Your task to perform on an android device: Open the Play Movies app and select the watchlist tab. Image 0: 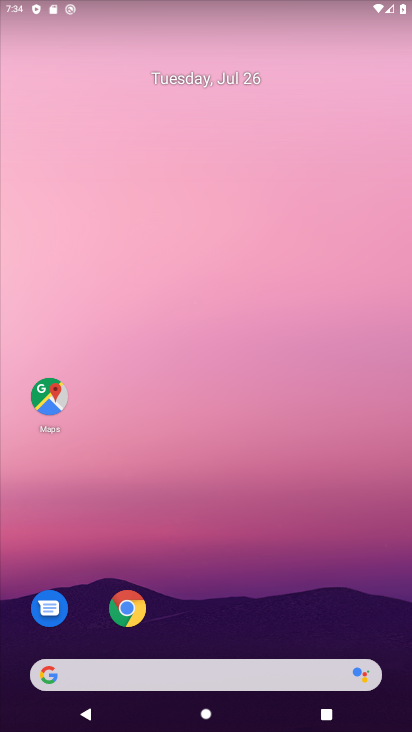
Step 0: click (252, 161)
Your task to perform on an android device: Open the Play Movies app and select the watchlist tab. Image 1: 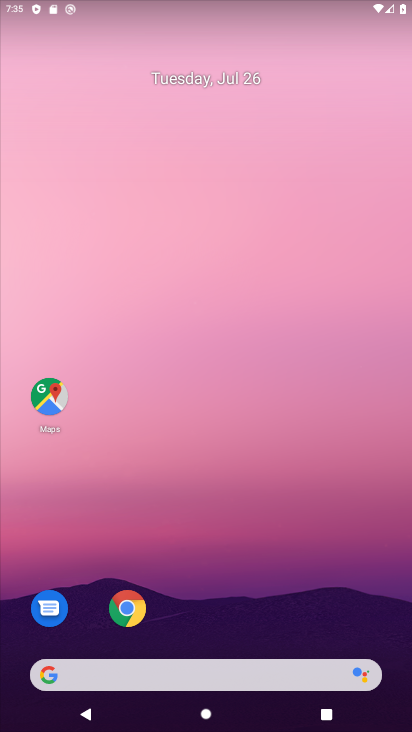
Step 1: drag from (284, 97) to (97, 37)
Your task to perform on an android device: Open the Play Movies app and select the watchlist tab. Image 2: 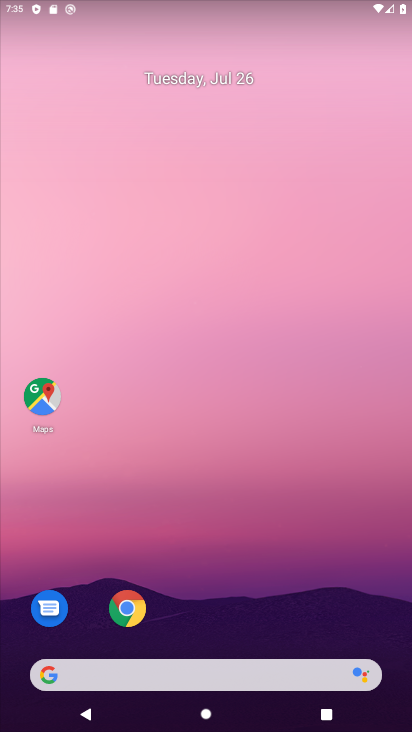
Step 2: drag from (148, 457) to (148, 87)
Your task to perform on an android device: Open the Play Movies app and select the watchlist tab. Image 3: 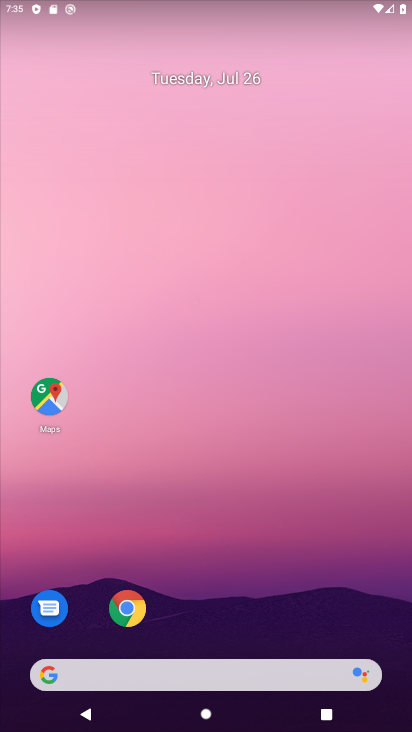
Step 3: drag from (227, 545) to (193, 85)
Your task to perform on an android device: Open the Play Movies app and select the watchlist tab. Image 4: 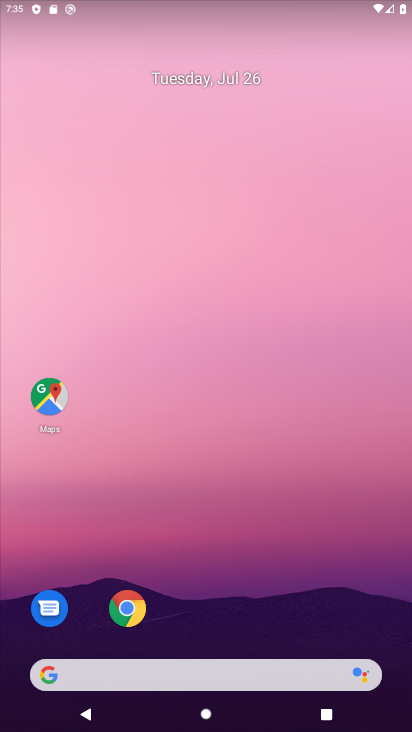
Step 4: drag from (188, 644) to (183, 199)
Your task to perform on an android device: Open the Play Movies app and select the watchlist tab. Image 5: 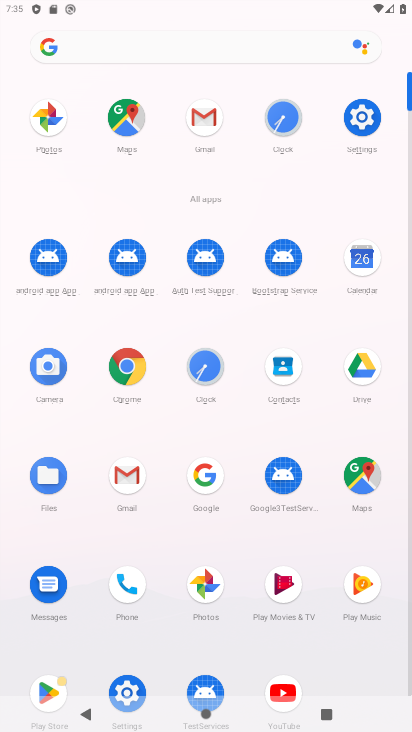
Step 5: drag from (225, 553) to (229, 191)
Your task to perform on an android device: Open the Play Movies app and select the watchlist tab. Image 6: 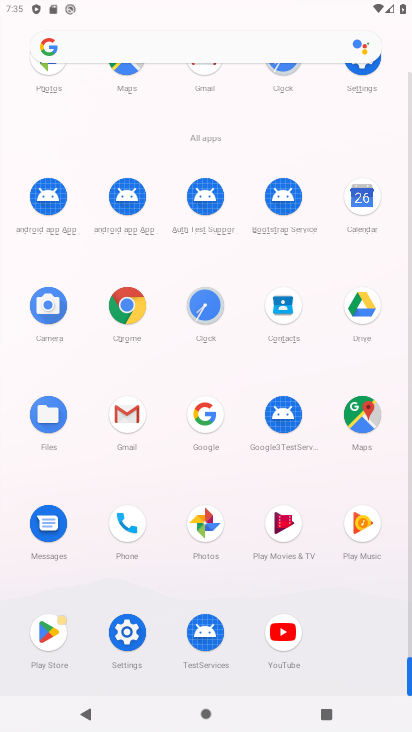
Step 6: click (281, 518)
Your task to perform on an android device: Open the Play Movies app and select the watchlist tab. Image 7: 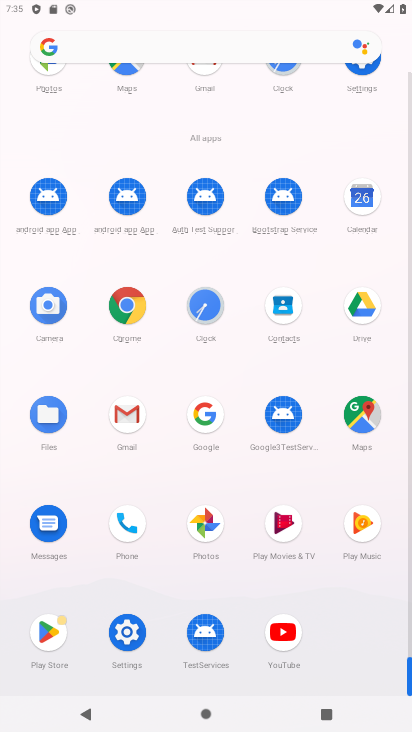
Step 7: click (281, 518)
Your task to perform on an android device: Open the Play Movies app and select the watchlist tab. Image 8: 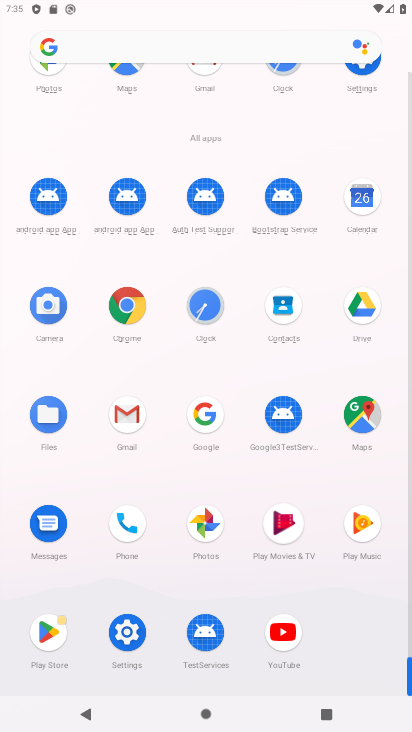
Step 8: click (282, 517)
Your task to perform on an android device: Open the Play Movies app and select the watchlist tab. Image 9: 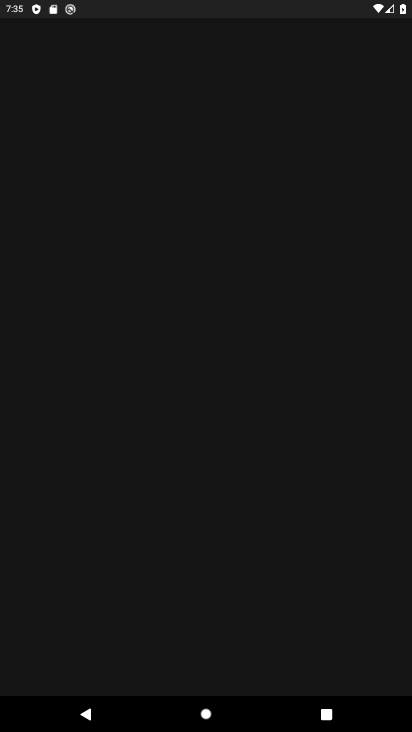
Step 9: click (285, 514)
Your task to perform on an android device: Open the Play Movies app and select the watchlist tab. Image 10: 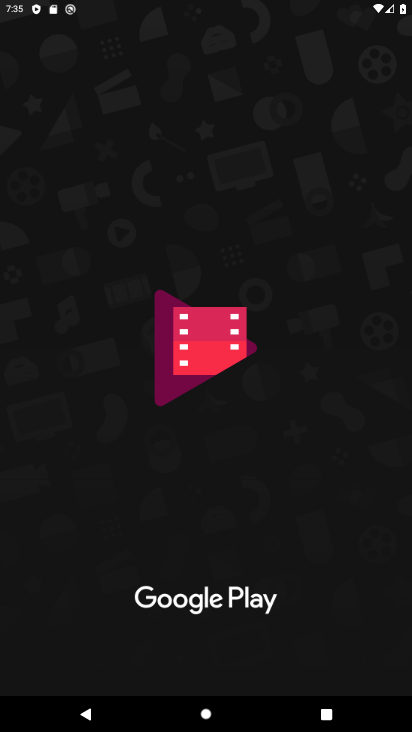
Step 10: click (285, 514)
Your task to perform on an android device: Open the Play Movies app and select the watchlist tab. Image 11: 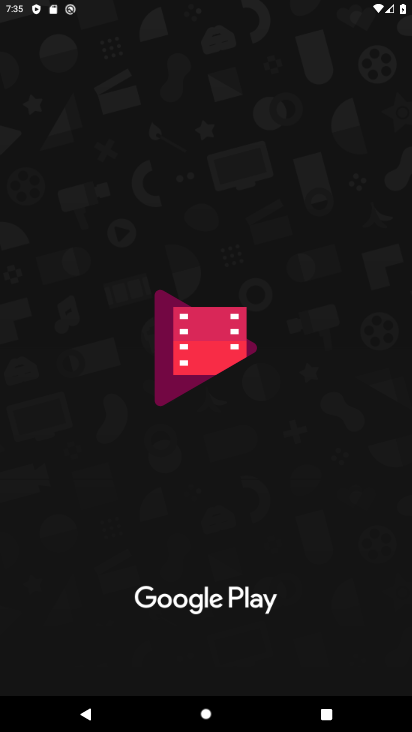
Step 11: drag from (283, 611) to (246, 295)
Your task to perform on an android device: Open the Play Movies app and select the watchlist tab. Image 12: 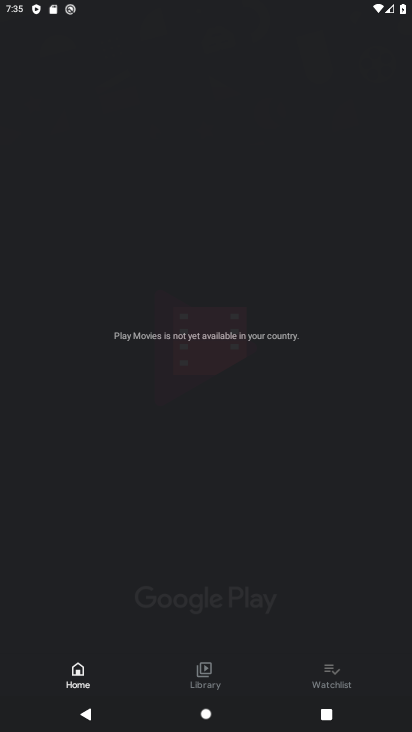
Step 12: drag from (261, 461) to (261, 171)
Your task to perform on an android device: Open the Play Movies app and select the watchlist tab. Image 13: 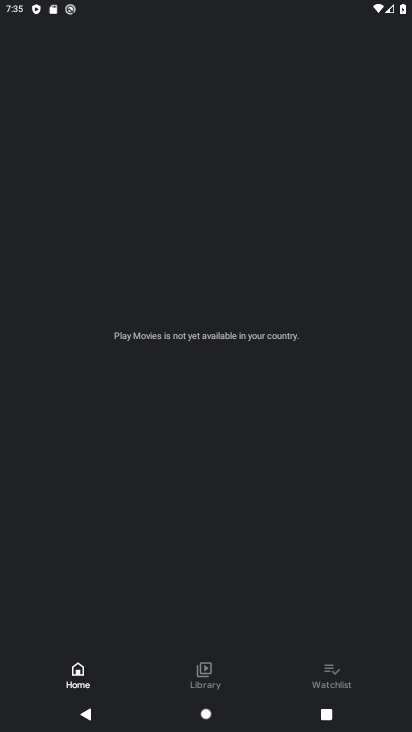
Step 13: drag from (258, 419) to (251, 239)
Your task to perform on an android device: Open the Play Movies app and select the watchlist tab. Image 14: 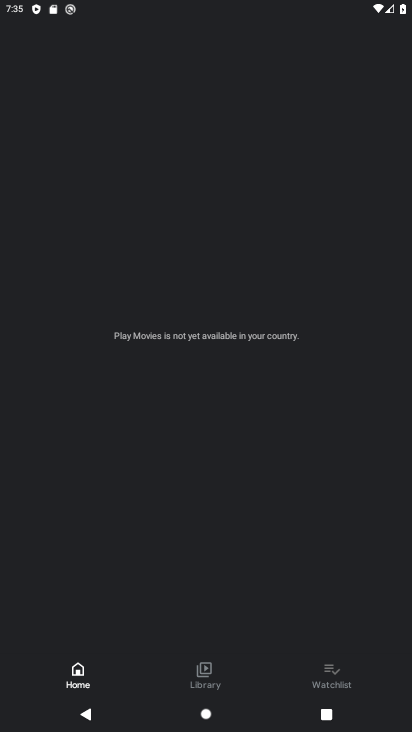
Step 14: click (334, 678)
Your task to perform on an android device: Open the Play Movies app and select the watchlist tab. Image 15: 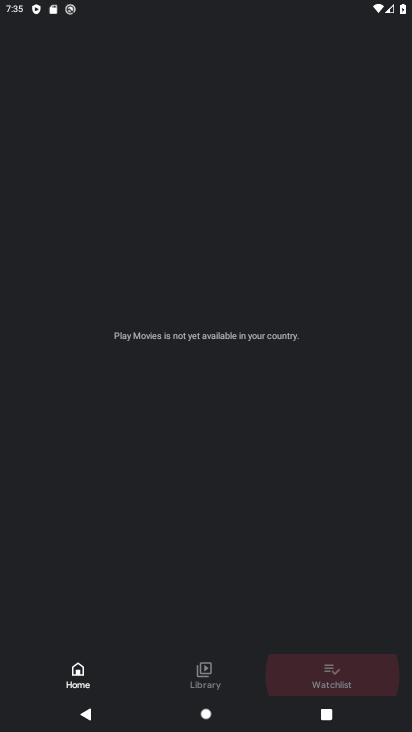
Step 15: click (334, 681)
Your task to perform on an android device: Open the Play Movies app and select the watchlist tab. Image 16: 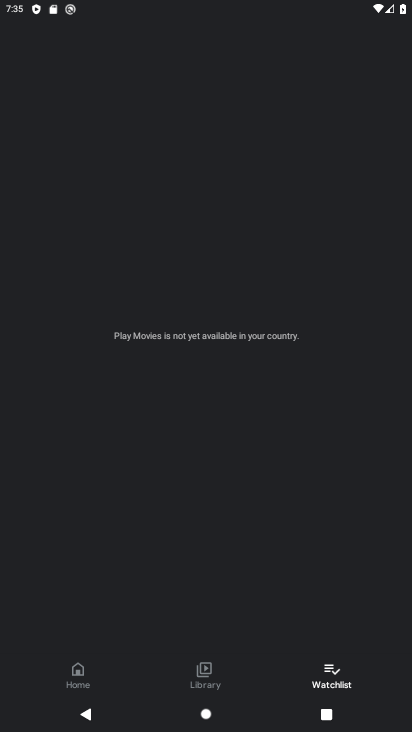
Step 16: click (334, 680)
Your task to perform on an android device: Open the Play Movies app and select the watchlist tab. Image 17: 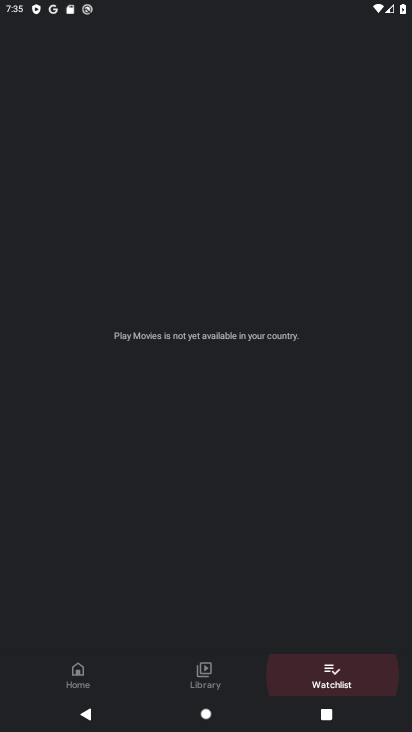
Step 17: click (343, 671)
Your task to perform on an android device: Open the Play Movies app and select the watchlist tab. Image 18: 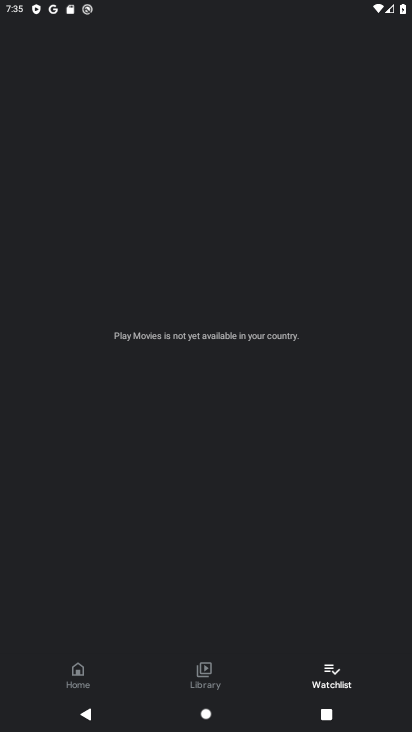
Step 18: task complete